Your task to perform on an android device: snooze an email in the gmail app Image 0: 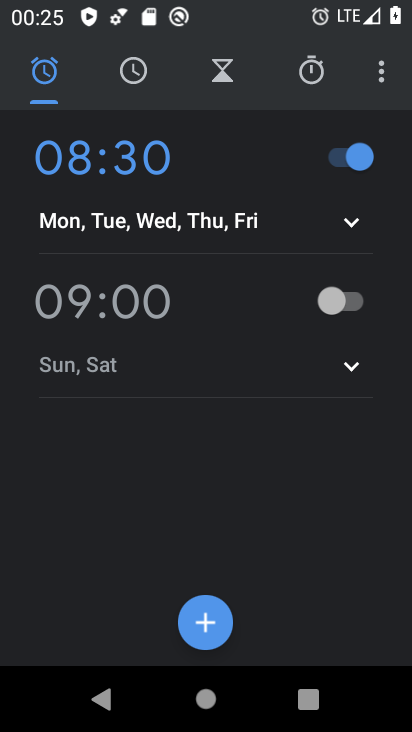
Step 0: press home button
Your task to perform on an android device: snooze an email in the gmail app Image 1: 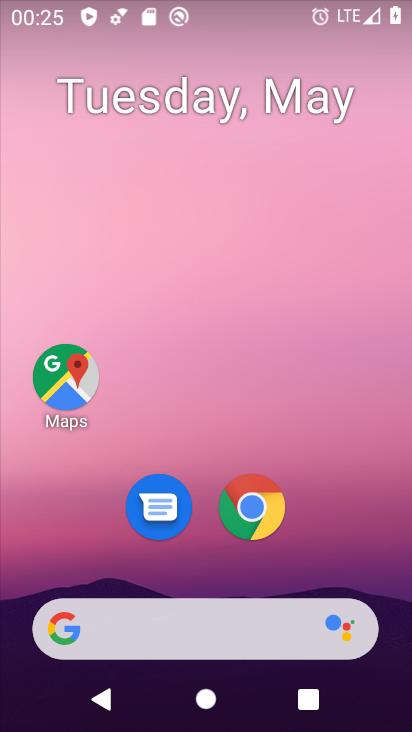
Step 1: drag from (220, 584) to (225, 201)
Your task to perform on an android device: snooze an email in the gmail app Image 2: 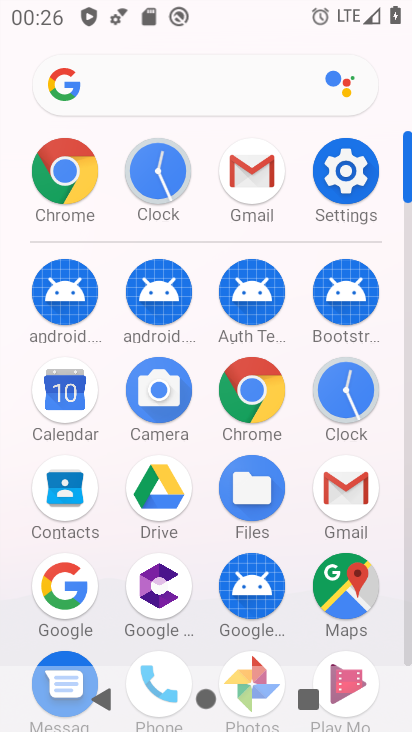
Step 2: click (335, 484)
Your task to perform on an android device: snooze an email in the gmail app Image 3: 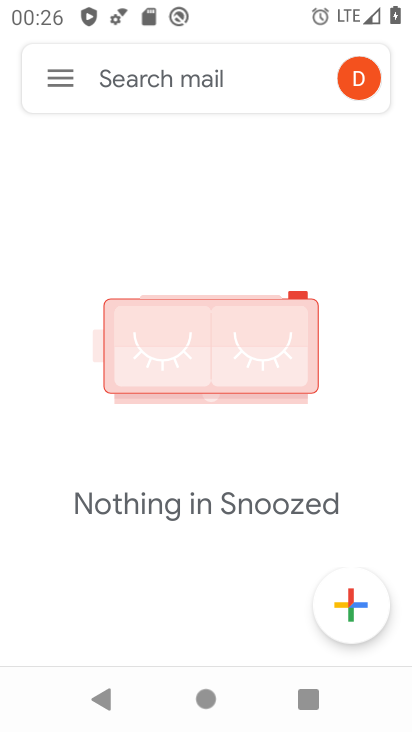
Step 3: click (74, 71)
Your task to perform on an android device: snooze an email in the gmail app Image 4: 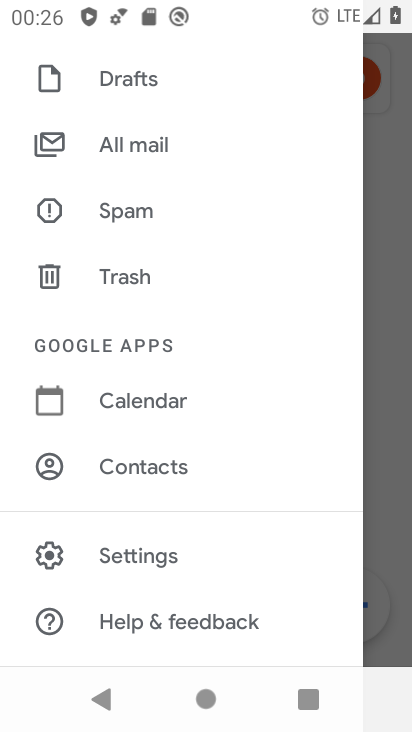
Step 4: drag from (175, 588) to (173, 268)
Your task to perform on an android device: snooze an email in the gmail app Image 5: 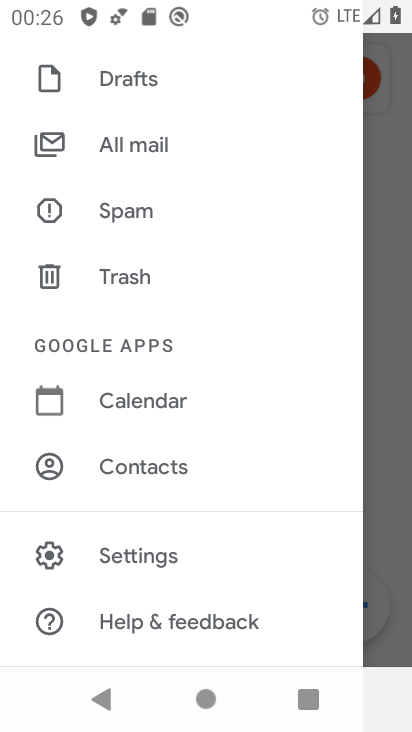
Step 5: drag from (189, 115) to (146, 543)
Your task to perform on an android device: snooze an email in the gmail app Image 6: 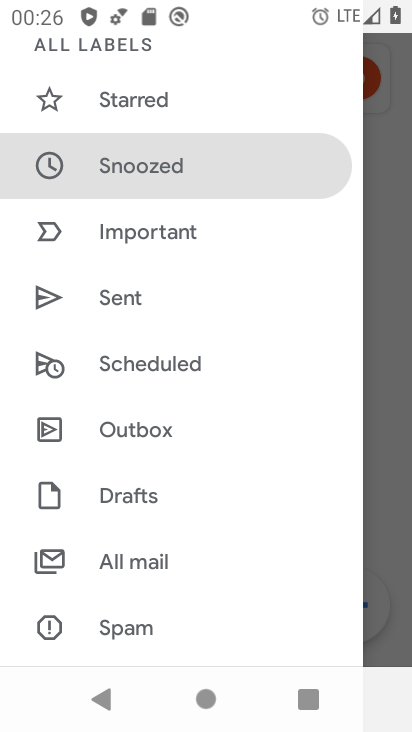
Step 6: click (156, 163)
Your task to perform on an android device: snooze an email in the gmail app Image 7: 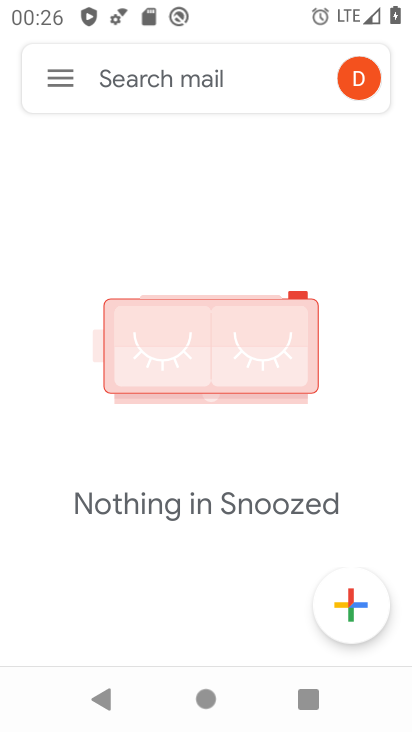
Step 7: task complete